Your task to perform on an android device: Go to accessibility settings Image 0: 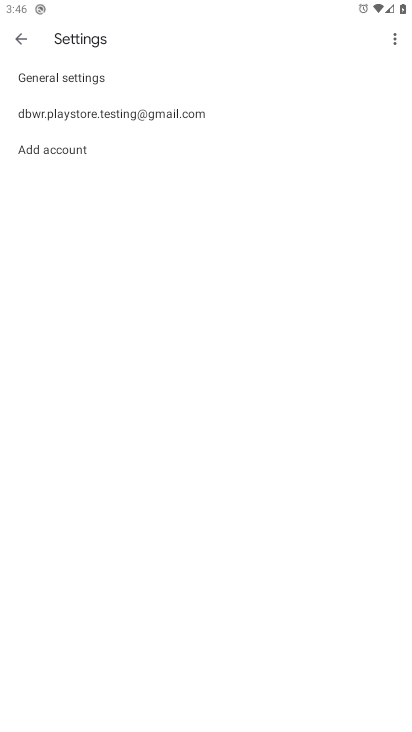
Step 0: press home button
Your task to perform on an android device: Go to accessibility settings Image 1: 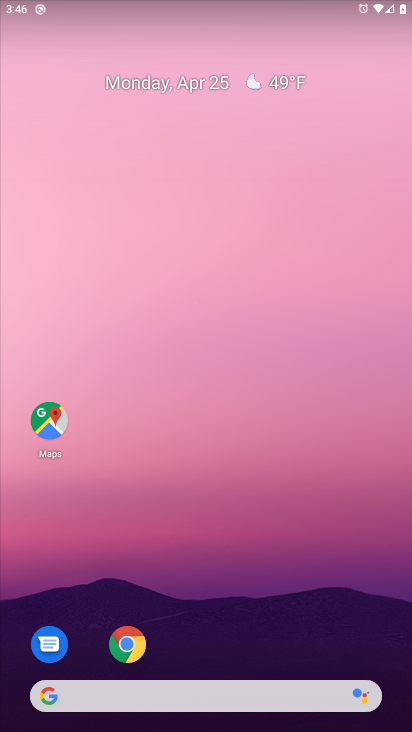
Step 1: drag from (244, 624) to (278, 56)
Your task to perform on an android device: Go to accessibility settings Image 2: 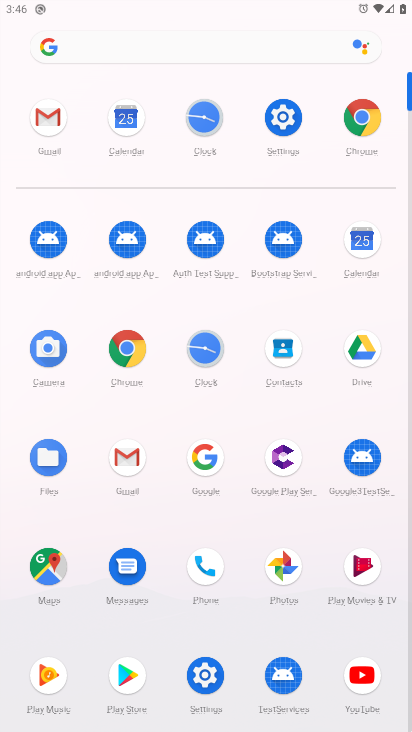
Step 2: click (274, 136)
Your task to perform on an android device: Go to accessibility settings Image 3: 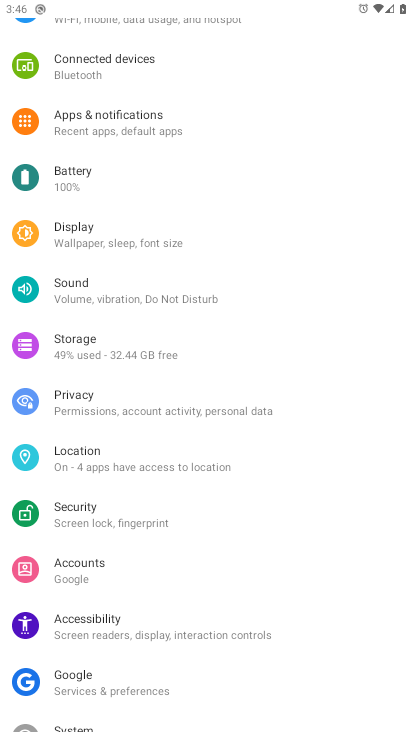
Step 3: click (191, 600)
Your task to perform on an android device: Go to accessibility settings Image 4: 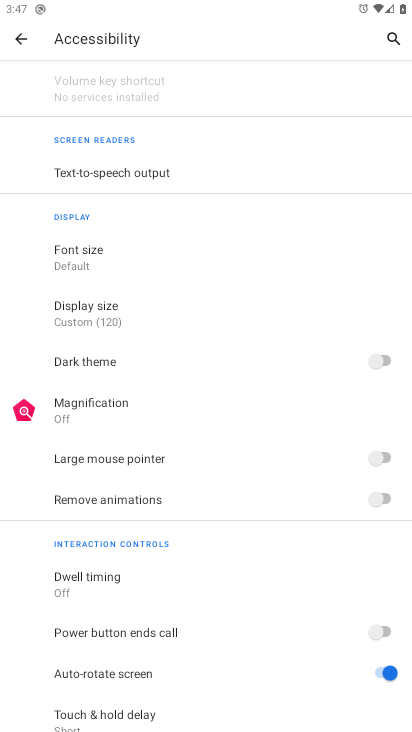
Step 4: task complete